Your task to perform on an android device: turn on translation in the chrome app Image 0: 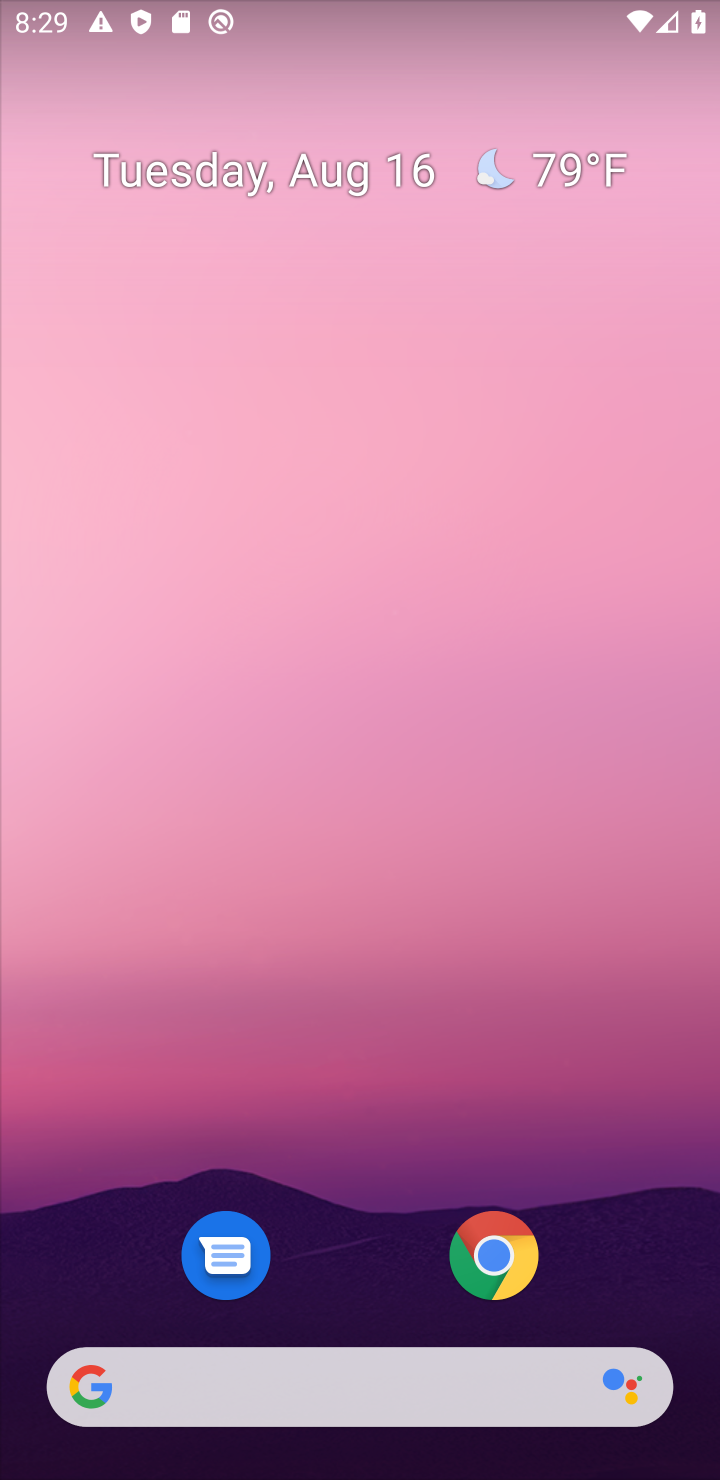
Step 0: click (467, 1287)
Your task to perform on an android device: turn on translation in the chrome app Image 1: 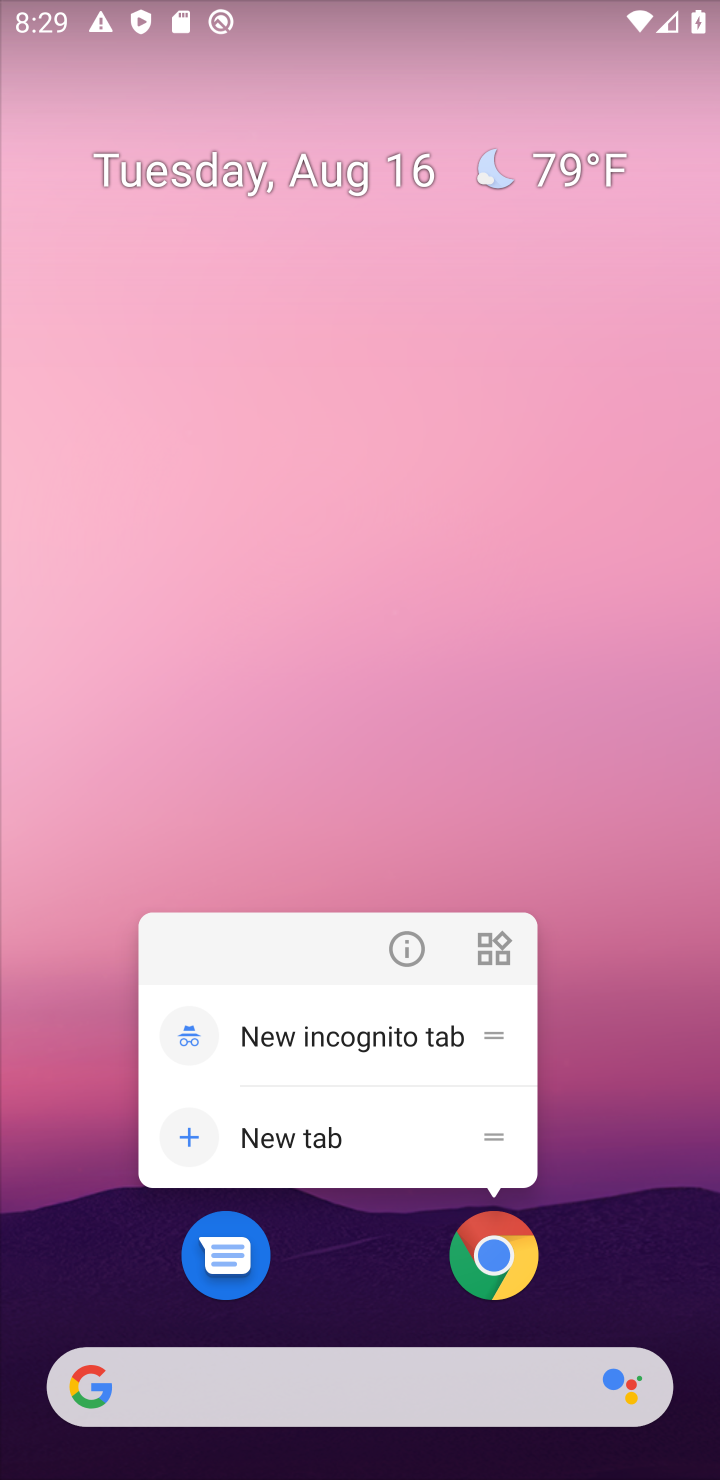
Step 1: click (467, 1287)
Your task to perform on an android device: turn on translation in the chrome app Image 2: 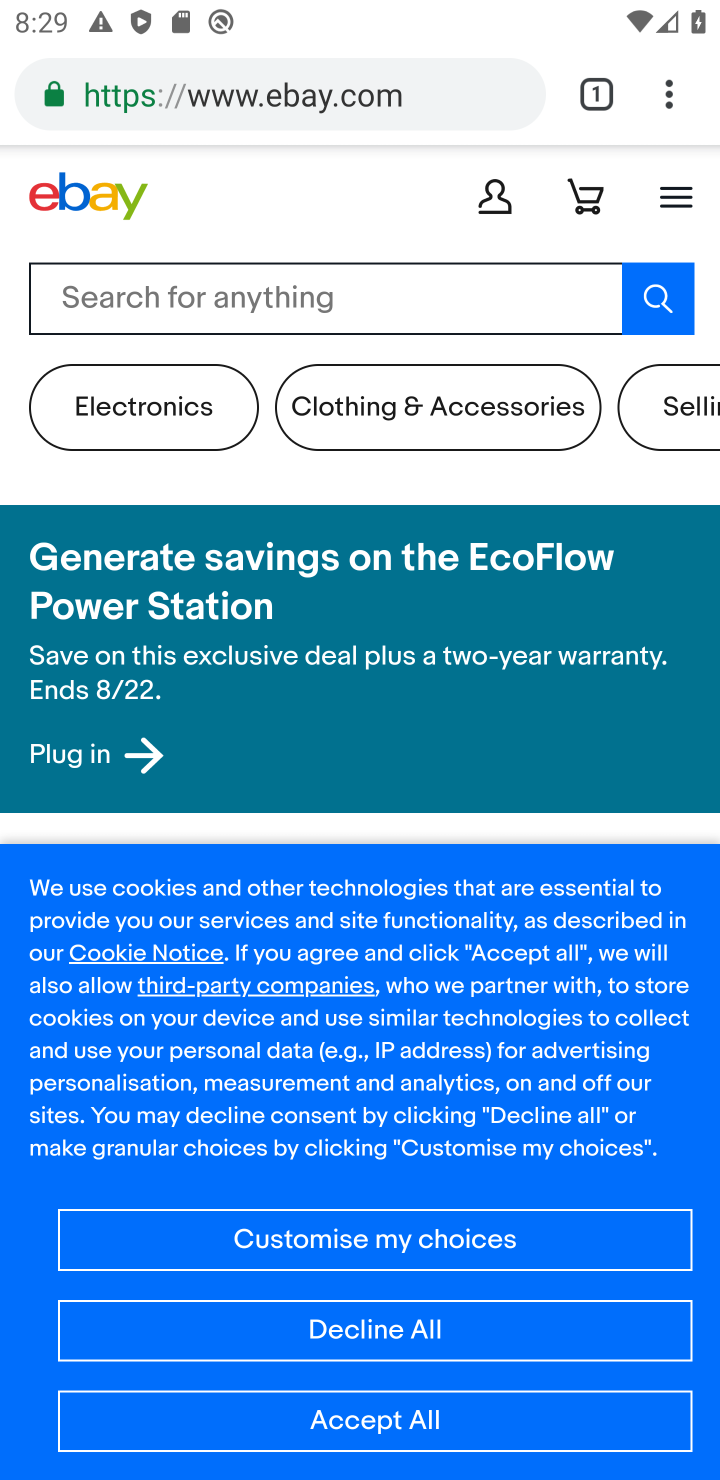
Step 2: drag from (659, 83) to (377, 1239)
Your task to perform on an android device: turn on translation in the chrome app Image 3: 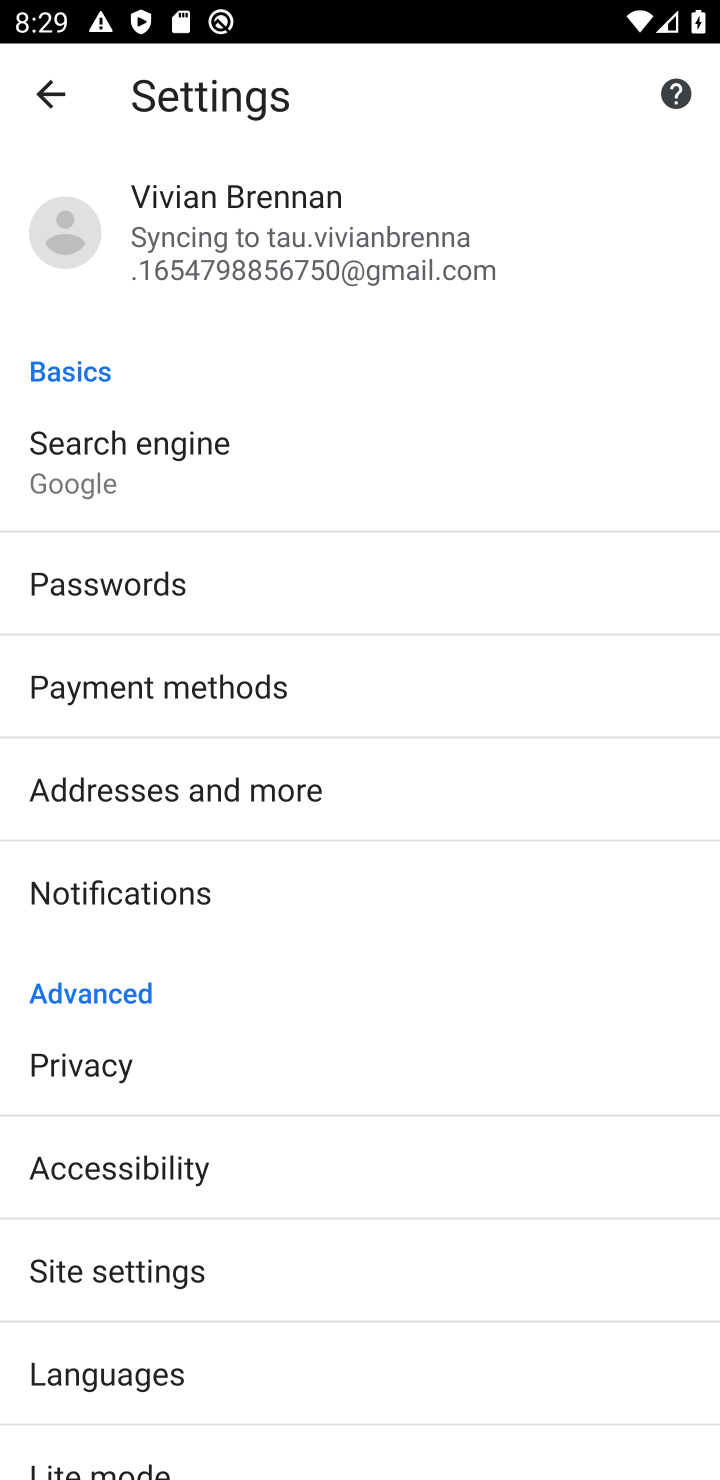
Step 3: click (326, 1338)
Your task to perform on an android device: turn on translation in the chrome app Image 4: 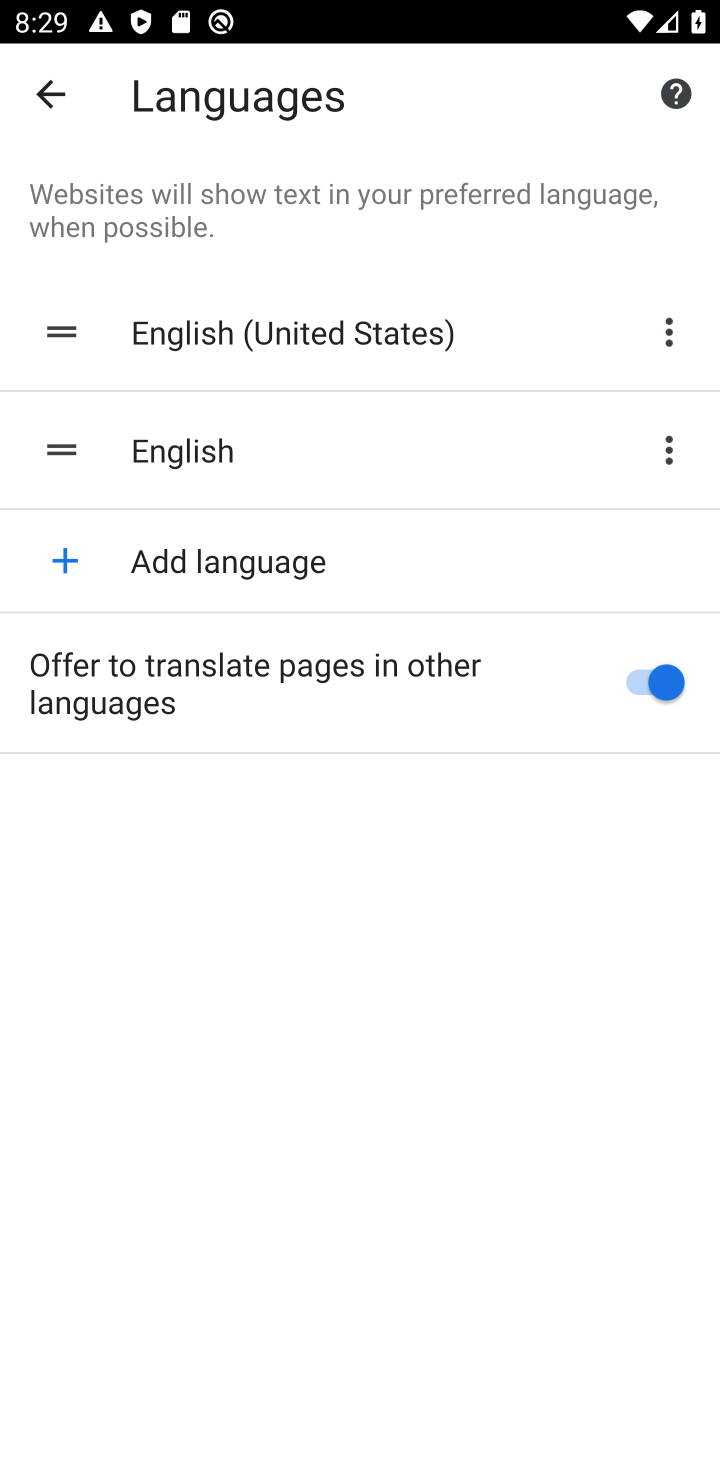
Step 4: drag from (409, 898) to (714, 803)
Your task to perform on an android device: turn on translation in the chrome app Image 5: 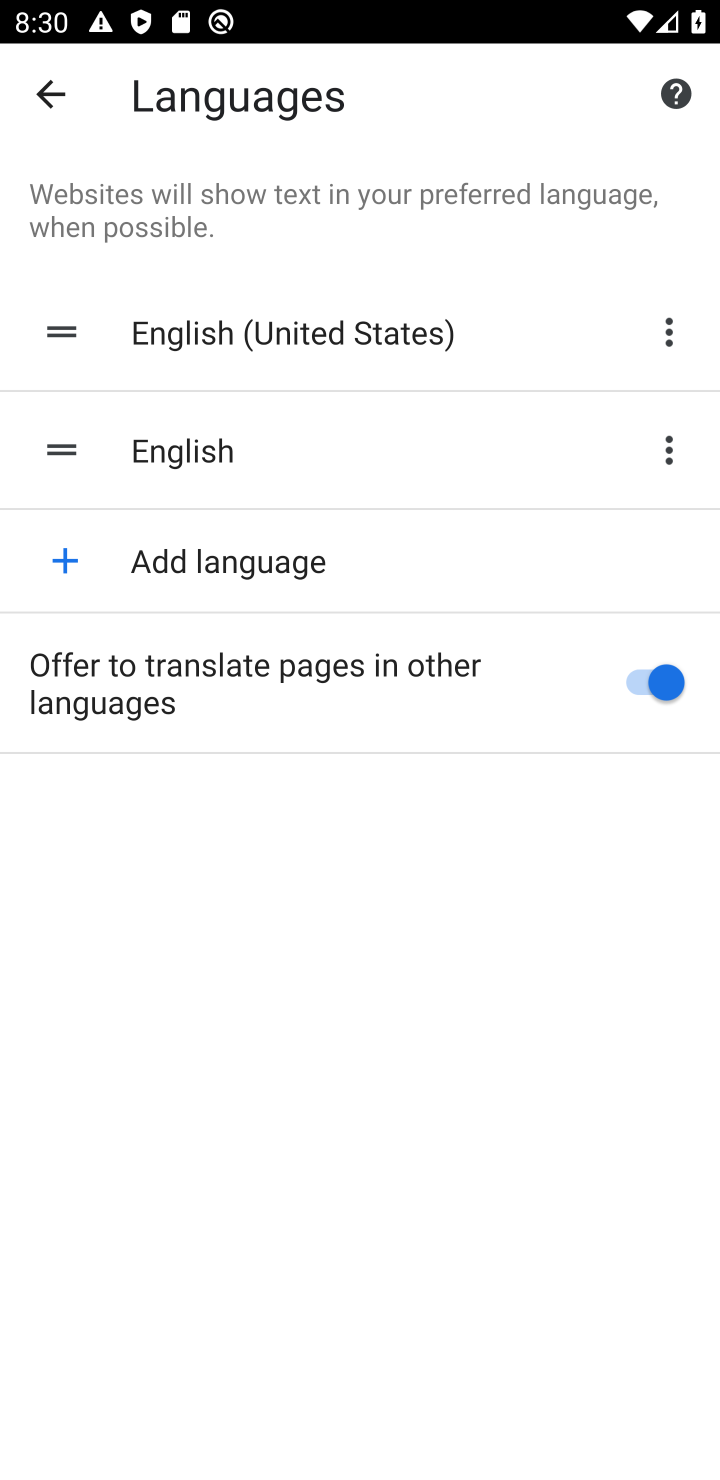
Step 5: click (370, 1275)
Your task to perform on an android device: turn on translation in the chrome app Image 6: 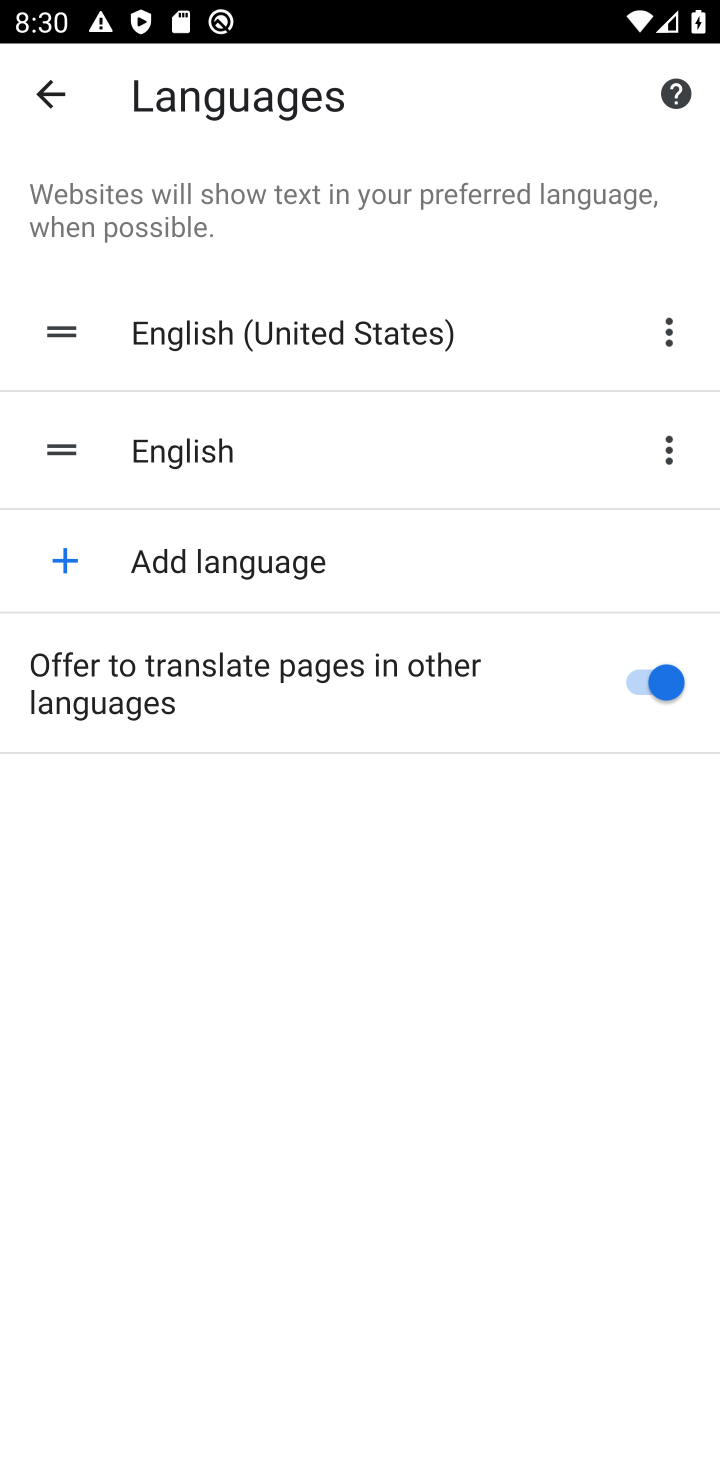
Step 6: click (493, 956)
Your task to perform on an android device: turn on translation in the chrome app Image 7: 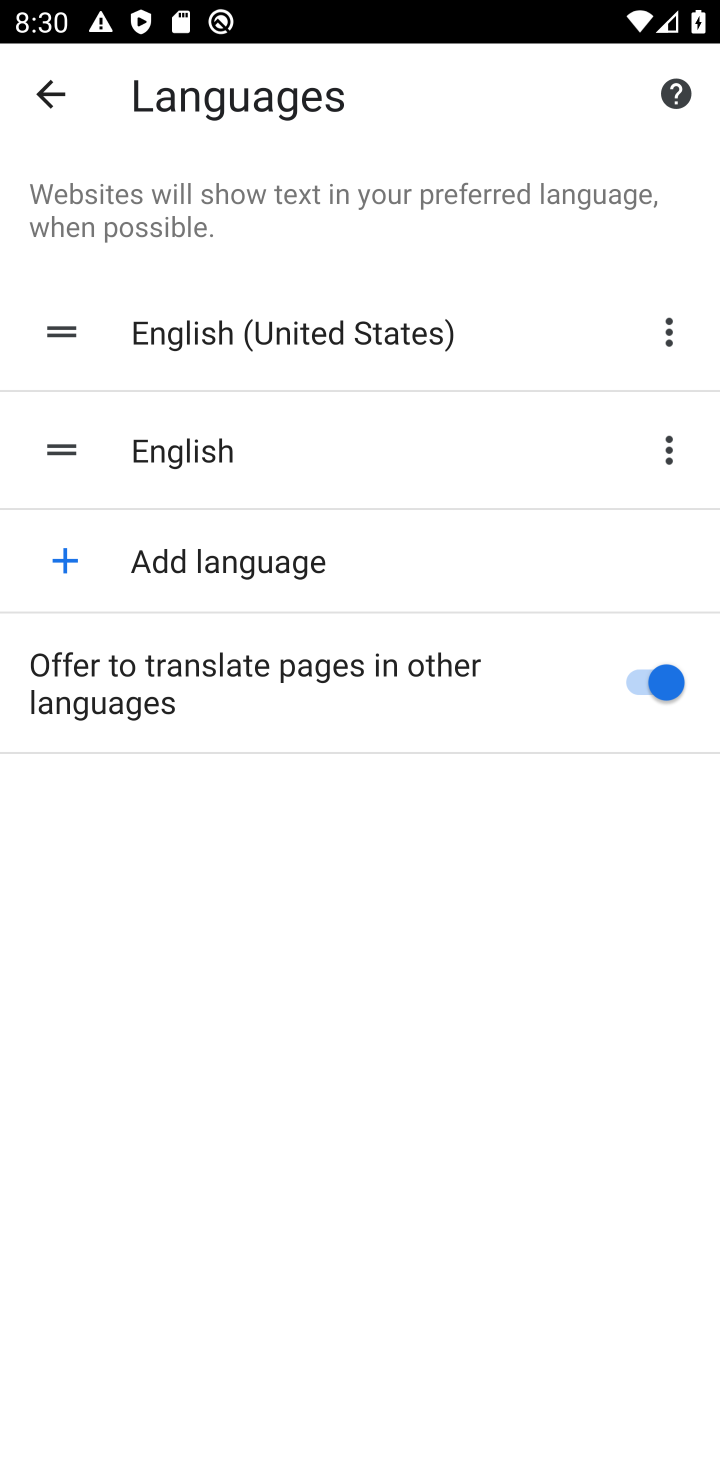
Step 7: task complete